Your task to perform on an android device: turn on the 24-hour format for clock Image 0: 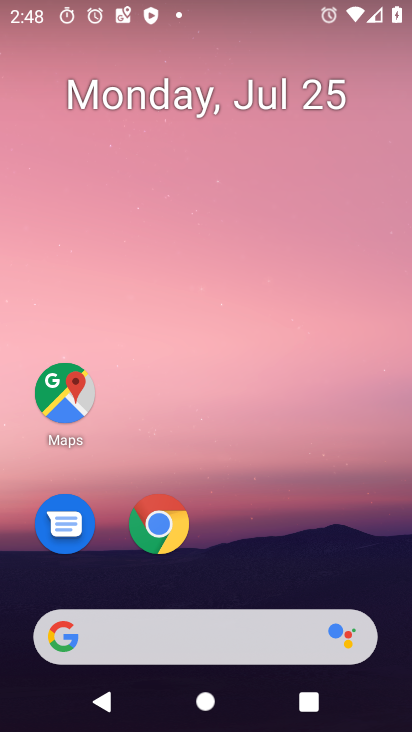
Step 0: drag from (276, 573) to (331, 62)
Your task to perform on an android device: turn on the 24-hour format for clock Image 1: 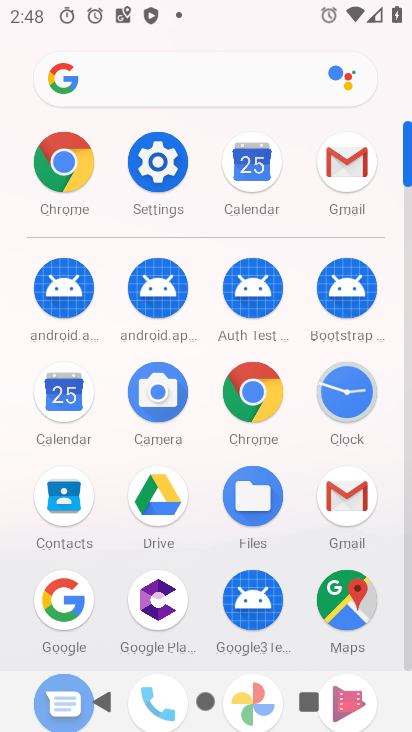
Step 1: click (150, 157)
Your task to perform on an android device: turn on the 24-hour format for clock Image 2: 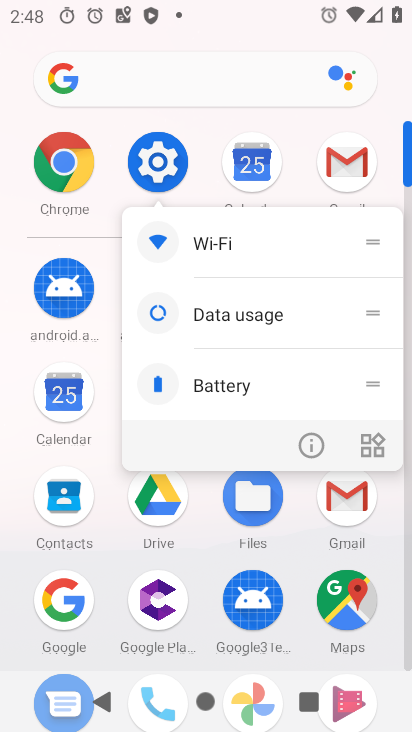
Step 2: click (157, 141)
Your task to perform on an android device: turn on the 24-hour format for clock Image 3: 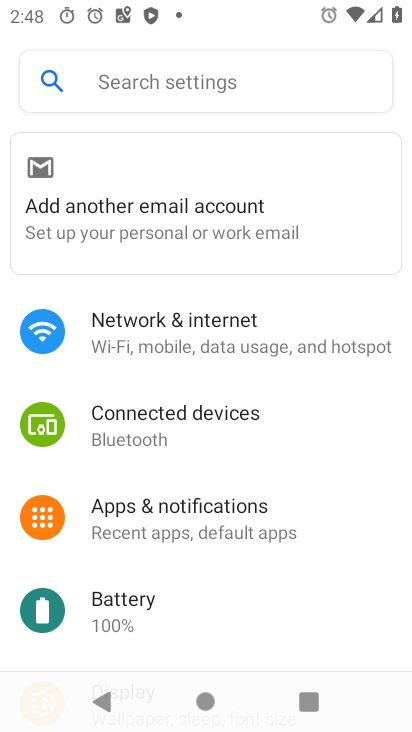
Step 3: drag from (308, 616) to (283, 2)
Your task to perform on an android device: turn on the 24-hour format for clock Image 4: 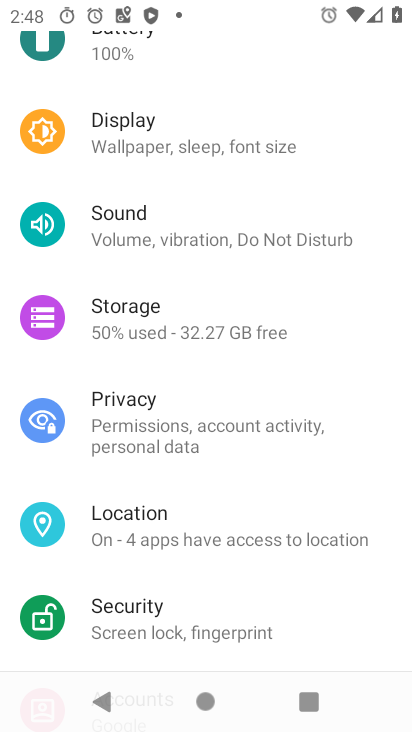
Step 4: drag from (326, 616) to (378, 36)
Your task to perform on an android device: turn on the 24-hour format for clock Image 5: 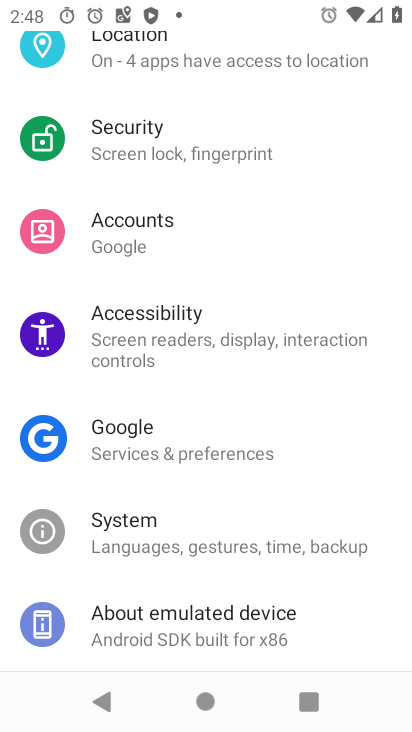
Step 5: click (113, 526)
Your task to perform on an android device: turn on the 24-hour format for clock Image 6: 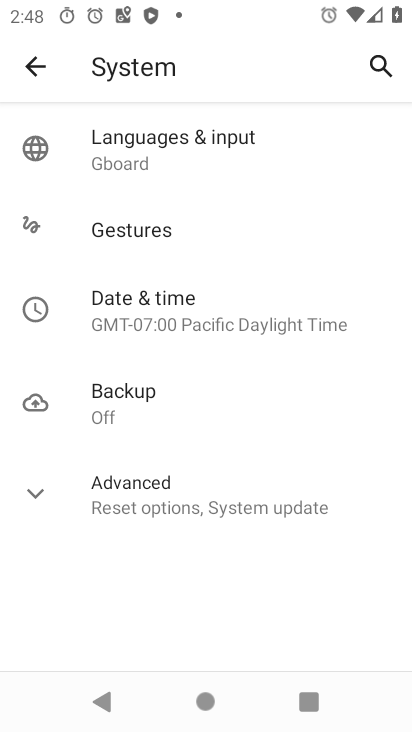
Step 6: click (147, 296)
Your task to perform on an android device: turn on the 24-hour format for clock Image 7: 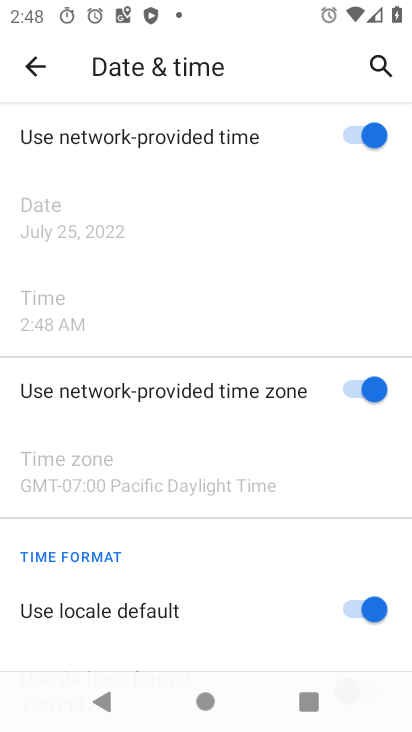
Step 7: drag from (313, 583) to (281, 208)
Your task to perform on an android device: turn on the 24-hour format for clock Image 8: 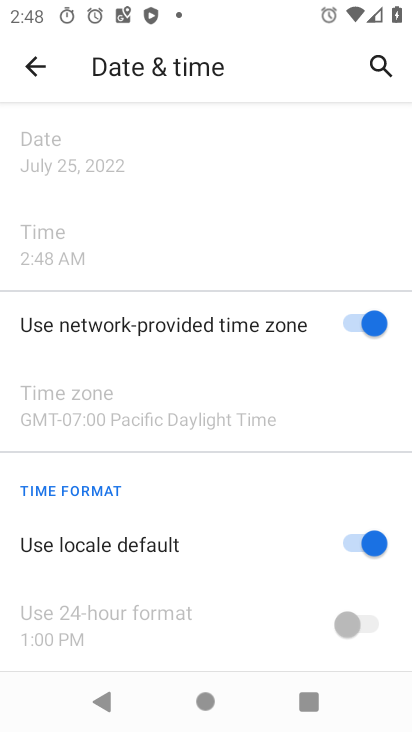
Step 8: click (362, 542)
Your task to perform on an android device: turn on the 24-hour format for clock Image 9: 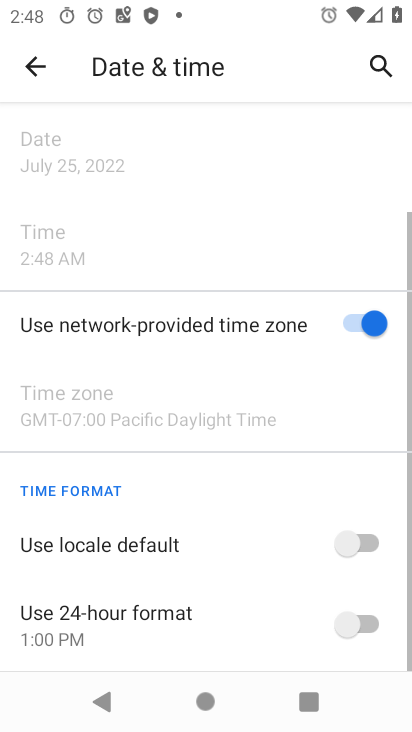
Step 9: click (353, 632)
Your task to perform on an android device: turn on the 24-hour format for clock Image 10: 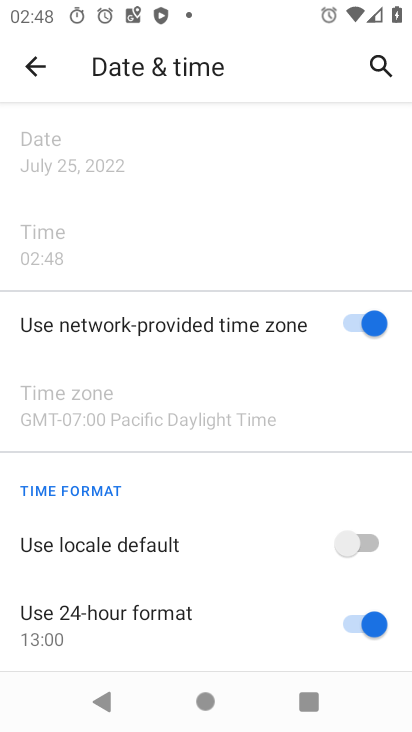
Step 10: task complete